Your task to perform on an android device: See recent photos Image 0: 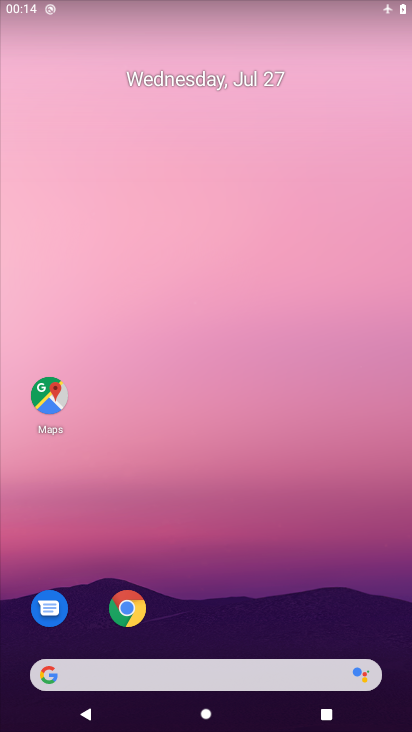
Step 0: press home button
Your task to perform on an android device: See recent photos Image 1: 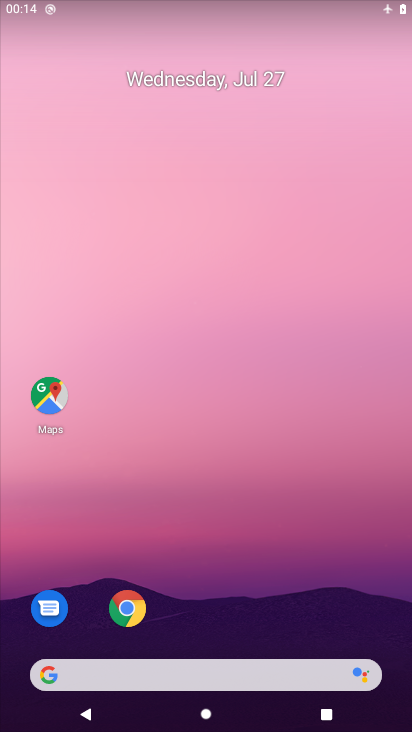
Step 1: drag from (187, 631) to (189, 77)
Your task to perform on an android device: See recent photos Image 2: 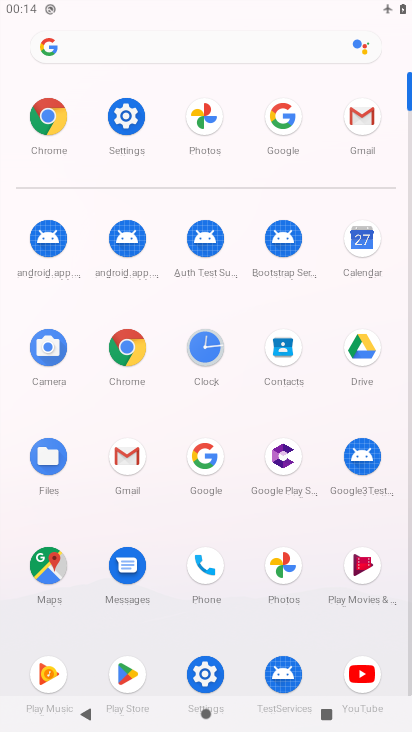
Step 2: click (195, 129)
Your task to perform on an android device: See recent photos Image 3: 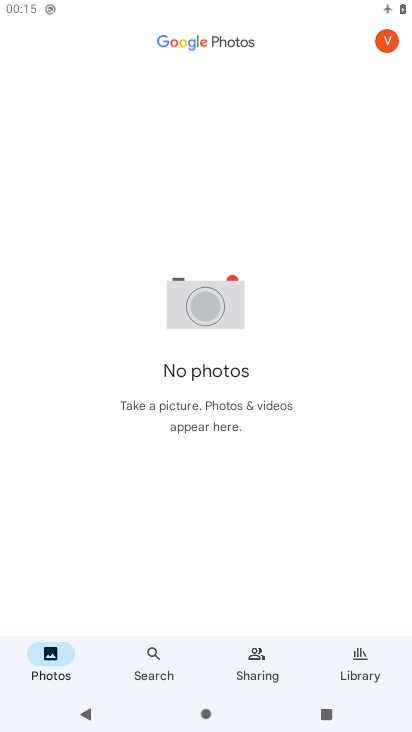
Step 3: task complete